Your task to perform on an android device: delete browsing data in the chrome app Image 0: 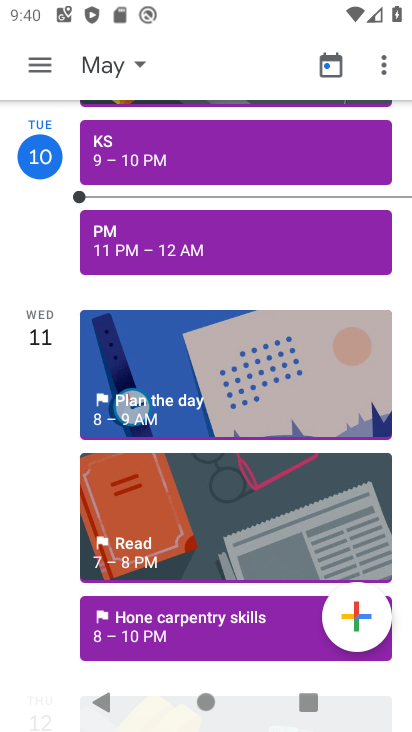
Step 0: press home button
Your task to perform on an android device: delete browsing data in the chrome app Image 1: 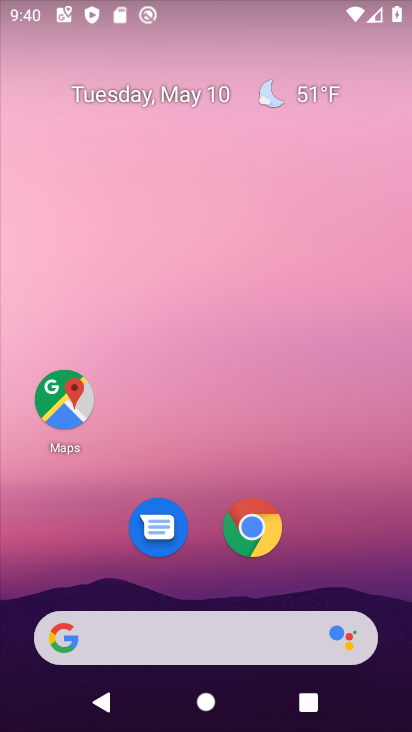
Step 1: click (254, 532)
Your task to perform on an android device: delete browsing data in the chrome app Image 2: 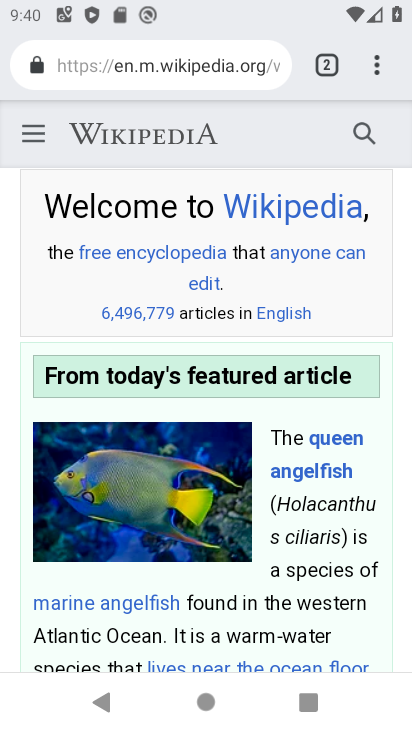
Step 2: click (375, 69)
Your task to perform on an android device: delete browsing data in the chrome app Image 3: 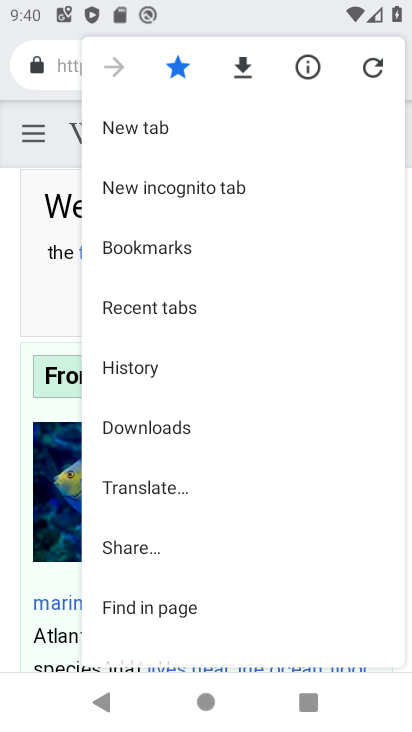
Step 3: click (125, 371)
Your task to perform on an android device: delete browsing data in the chrome app Image 4: 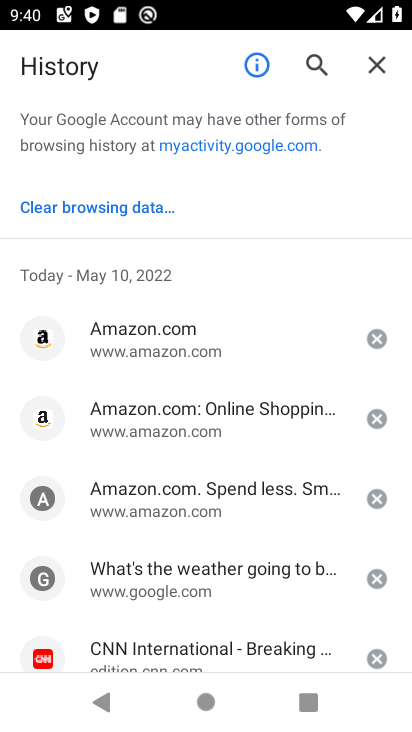
Step 4: click (108, 207)
Your task to perform on an android device: delete browsing data in the chrome app Image 5: 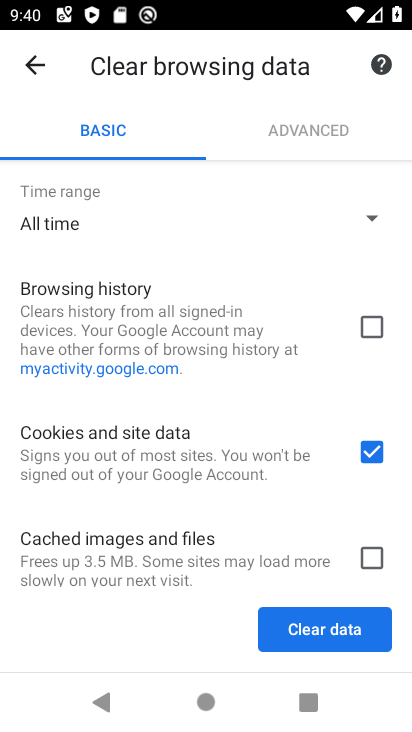
Step 5: click (378, 328)
Your task to perform on an android device: delete browsing data in the chrome app Image 6: 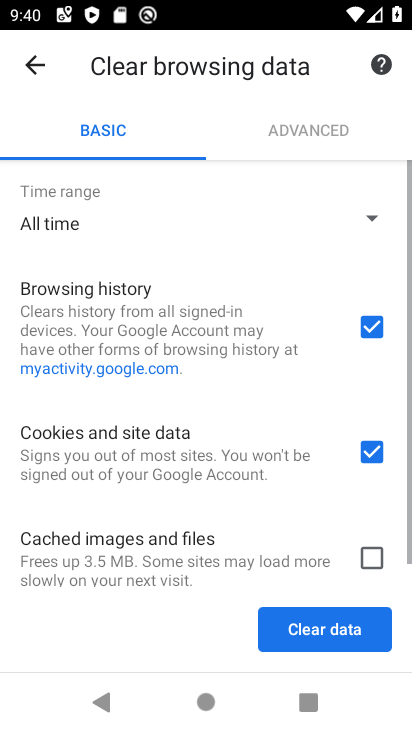
Step 6: click (371, 455)
Your task to perform on an android device: delete browsing data in the chrome app Image 7: 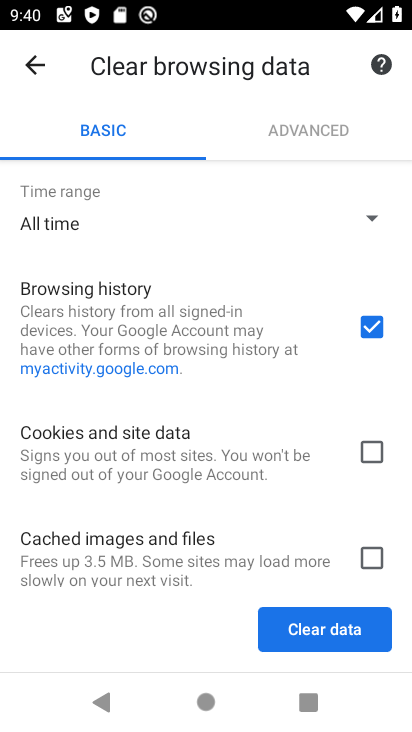
Step 7: click (339, 633)
Your task to perform on an android device: delete browsing data in the chrome app Image 8: 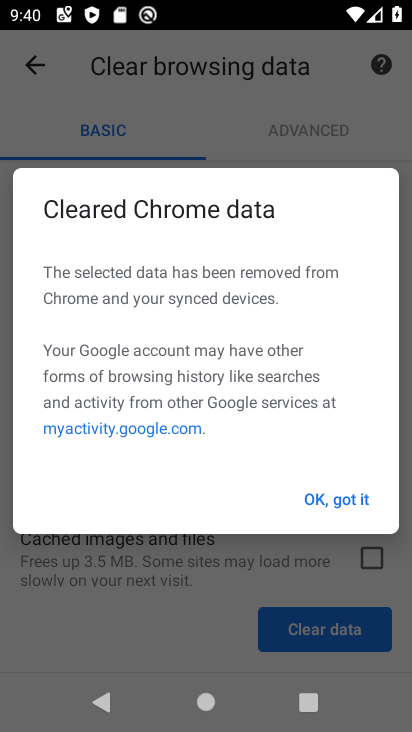
Step 8: click (345, 494)
Your task to perform on an android device: delete browsing data in the chrome app Image 9: 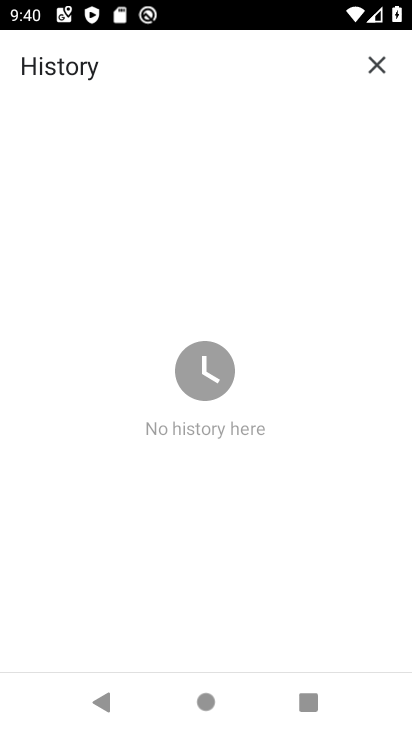
Step 9: task complete